Your task to perform on an android device: Open calendar and show me the first week of next month Image 0: 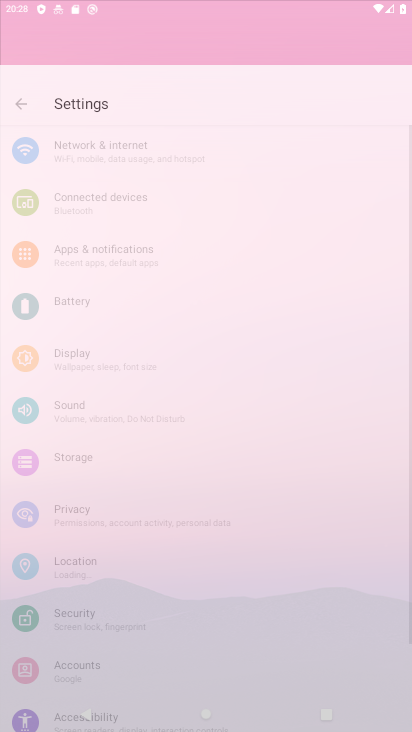
Step 0: drag from (349, 606) to (300, 2)
Your task to perform on an android device: Open calendar and show me the first week of next month Image 1: 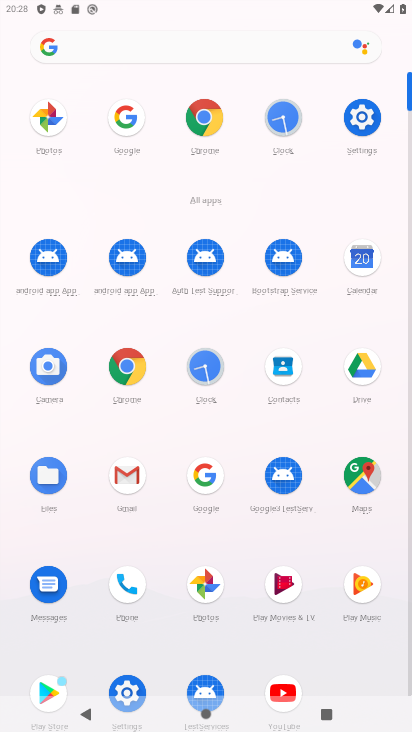
Step 1: click (365, 126)
Your task to perform on an android device: Open calendar and show me the first week of next month Image 2: 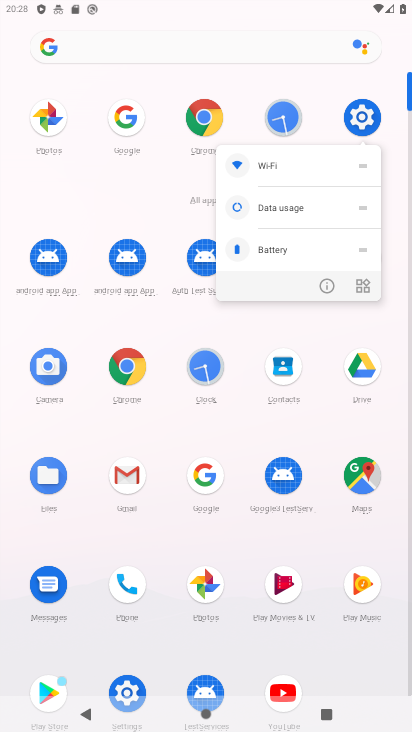
Step 2: click (358, 124)
Your task to perform on an android device: Open calendar and show me the first week of next month Image 3: 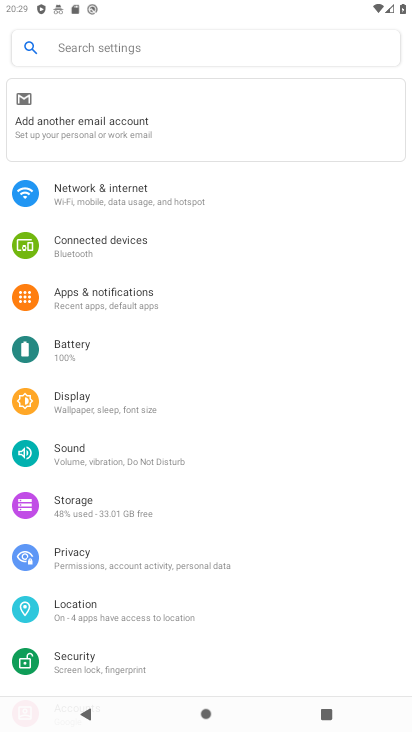
Step 3: drag from (240, 550) to (221, 409)
Your task to perform on an android device: Open calendar and show me the first week of next month Image 4: 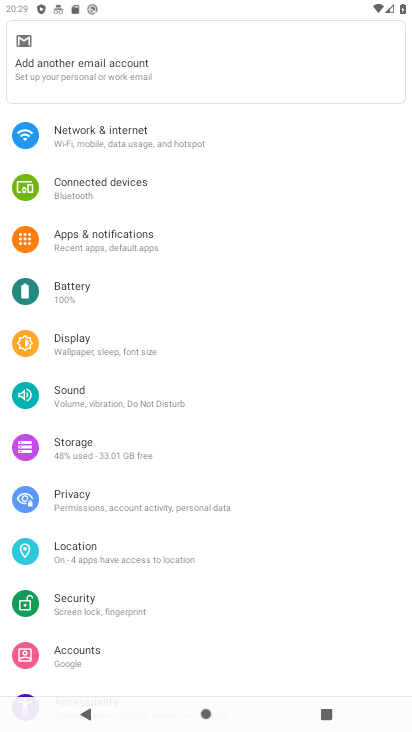
Step 4: click (105, 249)
Your task to perform on an android device: Open calendar and show me the first week of next month Image 5: 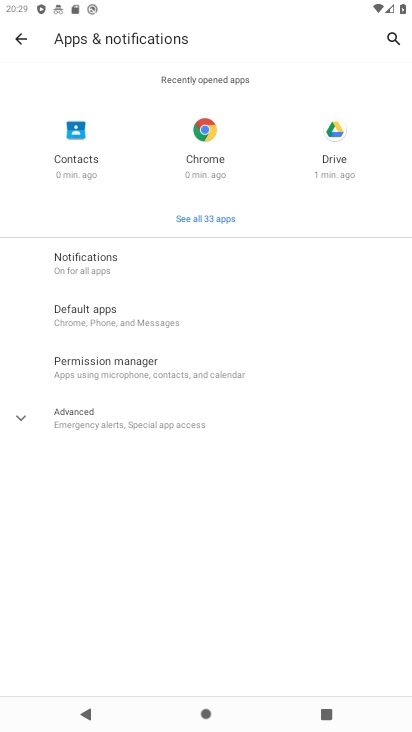
Step 5: click (109, 256)
Your task to perform on an android device: Open calendar and show me the first week of next month Image 6: 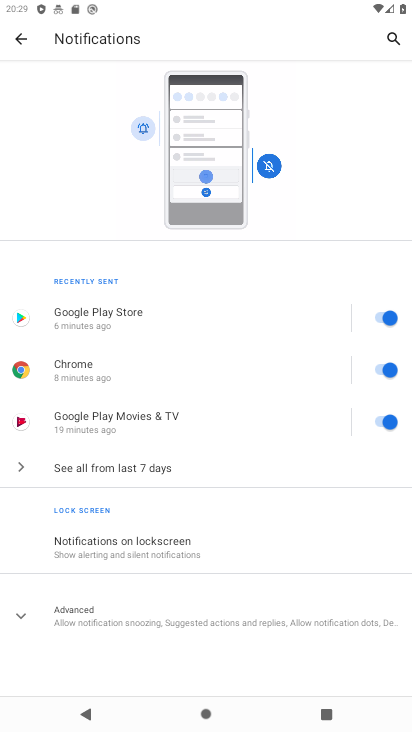
Step 6: click (156, 548)
Your task to perform on an android device: Open calendar and show me the first week of next month Image 7: 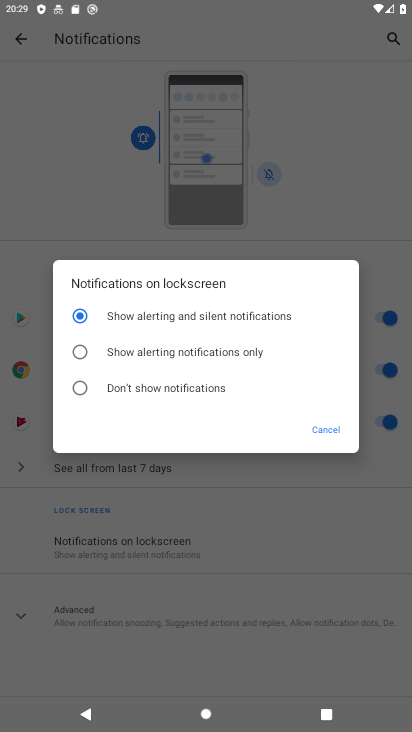
Step 7: click (140, 353)
Your task to perform on an android device: Open calendar and show me the first week of next month Image 8: 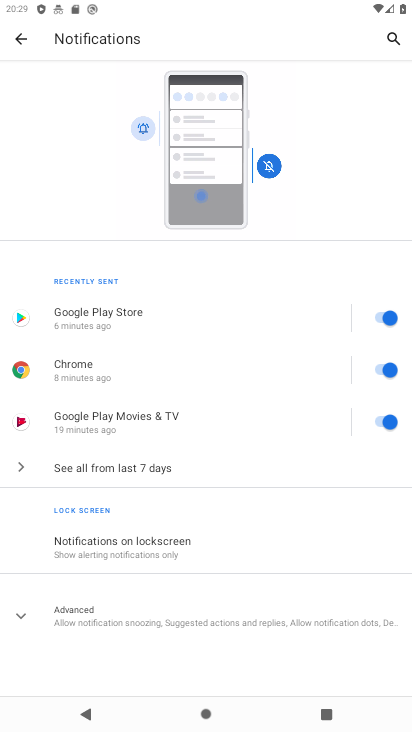
Step 8: task complete